Your task to perform on an android device: clear history in the chrome app Image 0: 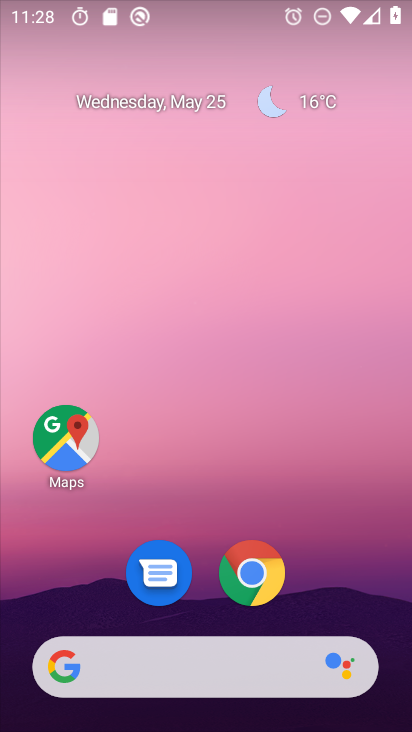
Step 0: click (252, 575)
Your task to perform on an android device: clear history in the chrome app Image 1: 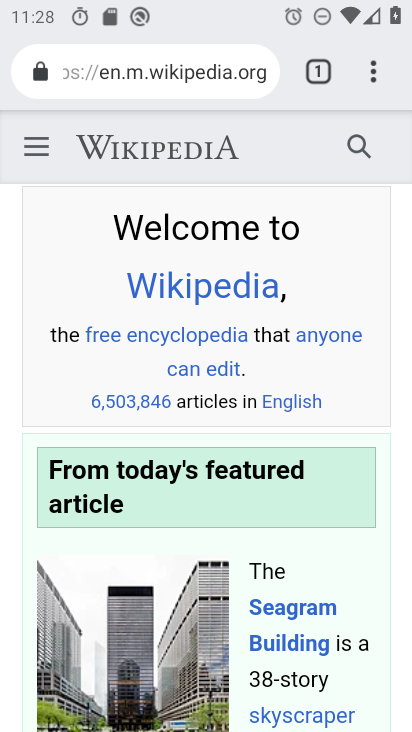
Step 1: click (377, 75)
Your task to perform on an android device: clear history in the chrome app Image 2: 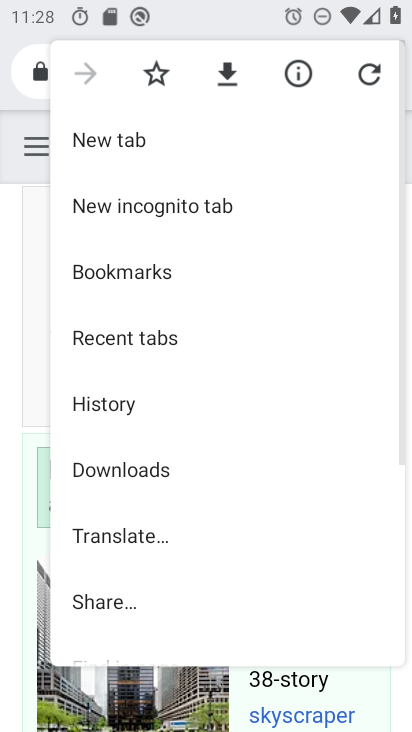
Step 2: drag from (208, 577) to (257, 225)
Your task to perform on an android device: clear history in the chrome app Image 3: 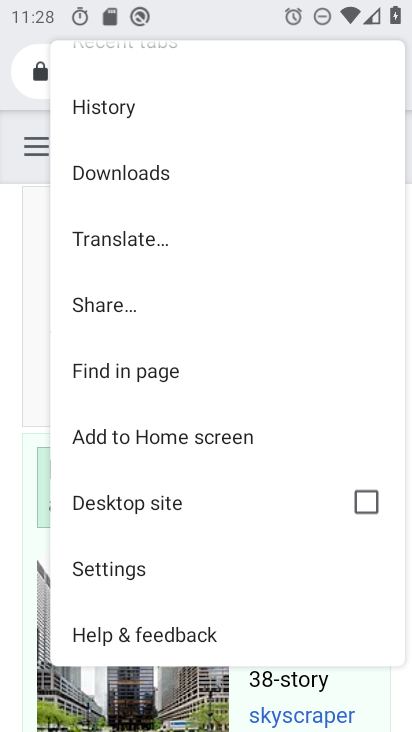
Step 3: click (103, 569)
Your task to perform on an android device: clear history in the chrome app Image 4: 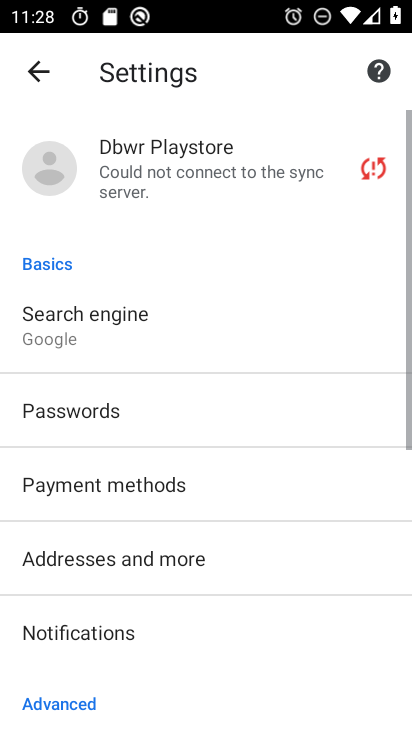
Step 4: drag from (223, 602) to (241, 285)
Your task to perform on an android device: clear history in the chrome app Image 5: 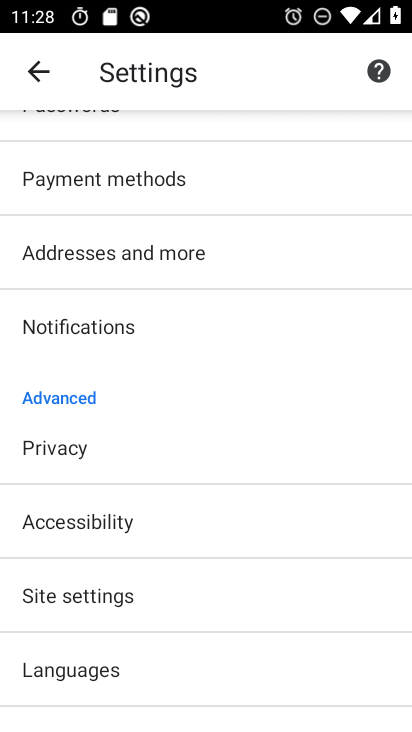
Step 5: click (49, 456)
Your task to perform on an android device: clear history in the chrome app Image 6: 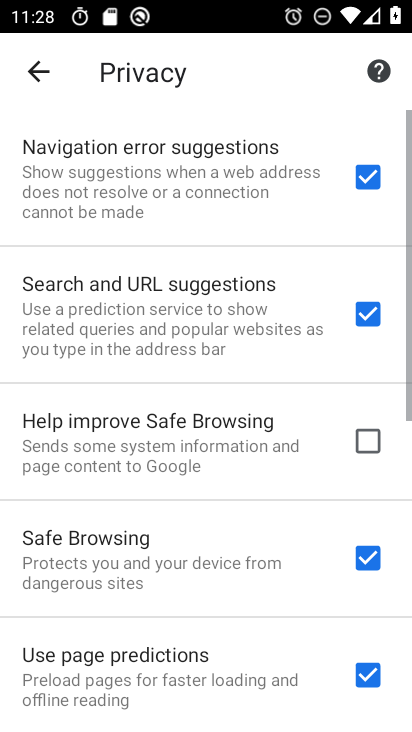
Step 6: drag from (191, 644) to (187, 176)
Your task to perform on an android device: clear history in the chrome app Image 7: 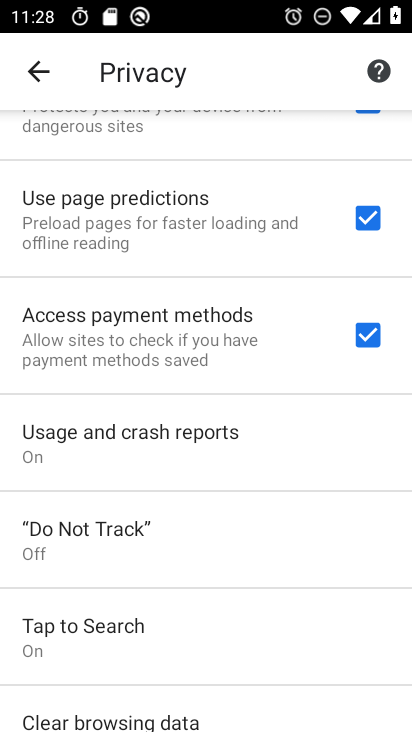
Step 7: drag from (120, 589) to (145, 318)
Your task to perform on an android device: clear history in the chrome app Image 8: 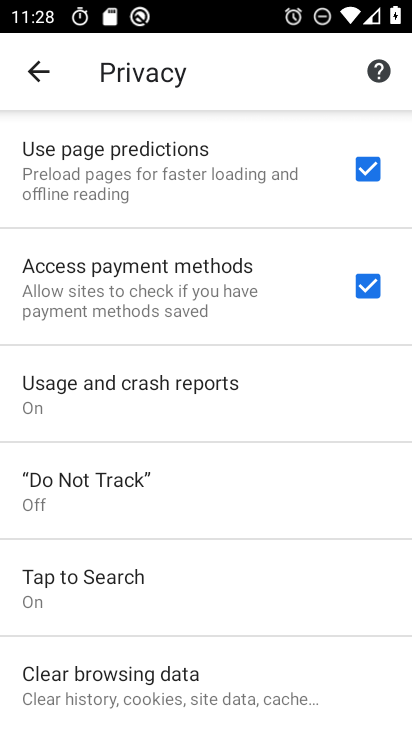
Step 8: click (116, 687)
Your task to perform on an android device: clear history in the chrome app Image 9: 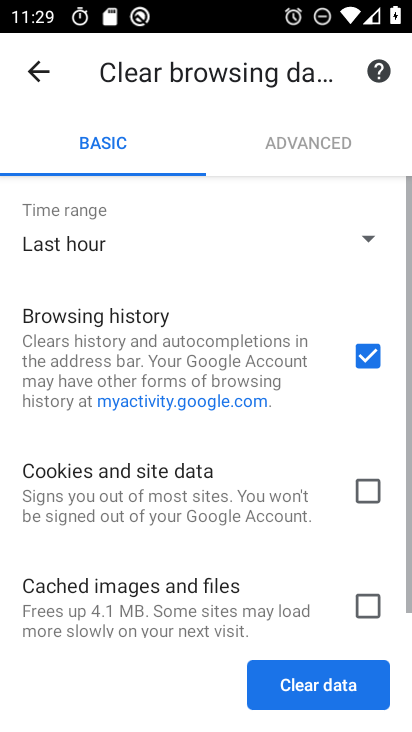
Step 9: drag from (107, 588) to (120, 465)
Your task to perform on an android device: clear history in the chrome app Image 10: 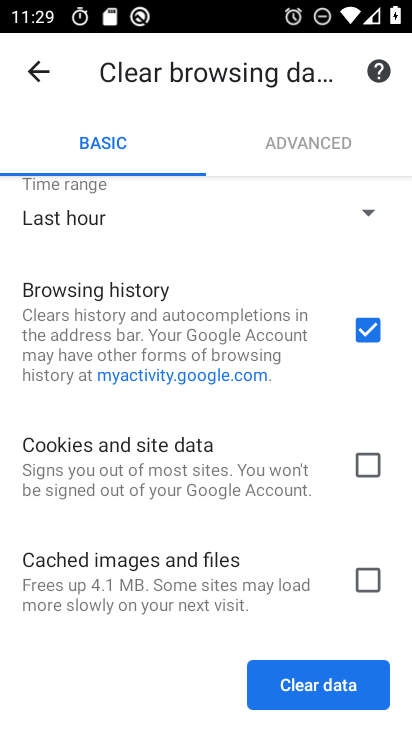
Step 10: click (313, 683)
Your task to perform on an android device: clear history in the chrome app Image 11: 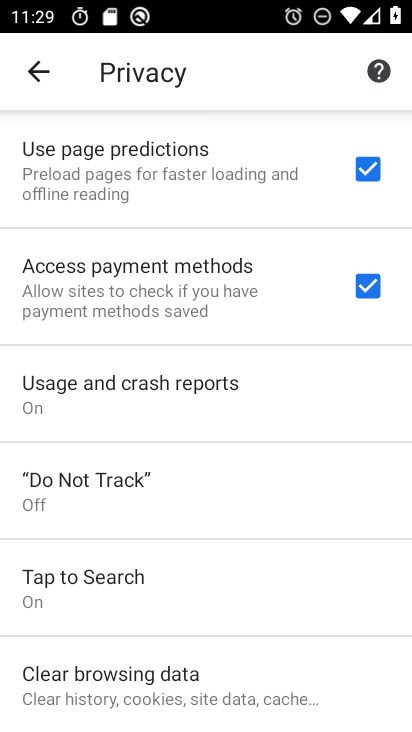
Step 11: task complete